Your task to perform on an android device: set an alarm Image 0: 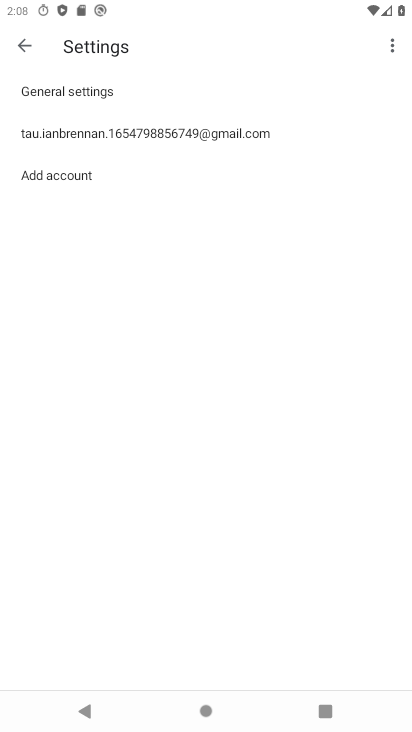
Step 0: press home button
Your task to perform on an android device: set an alarm Image 1: 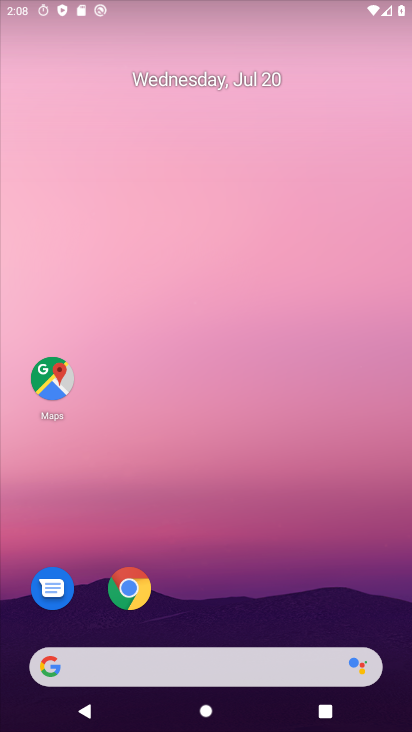
Step 1: drag from (286, 653) to (235, 35)
Your task to perform on an android device: set an alarm Image 2: 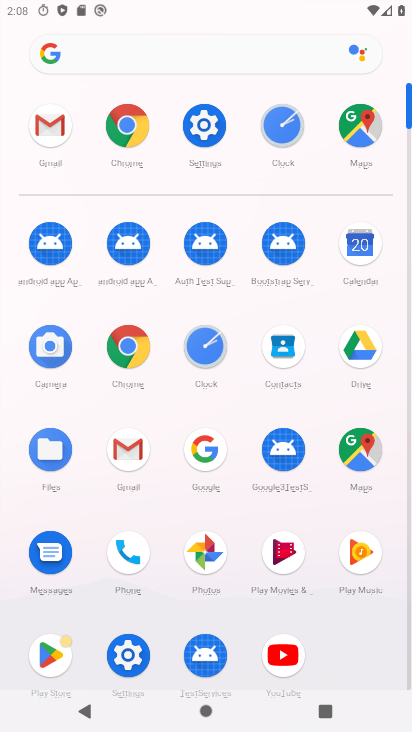
Step 2: click (216, 343)
Your task to perform on an android device: set an alarm Image 3: 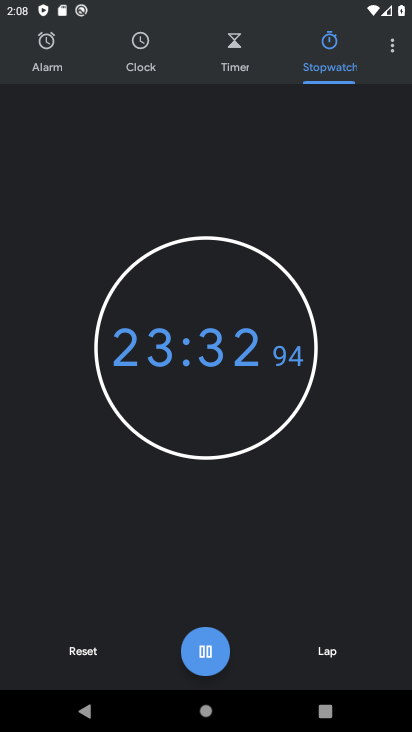
Step 3: click (57, 52)
Your task to perform on an android device: set an alarm Image 4: 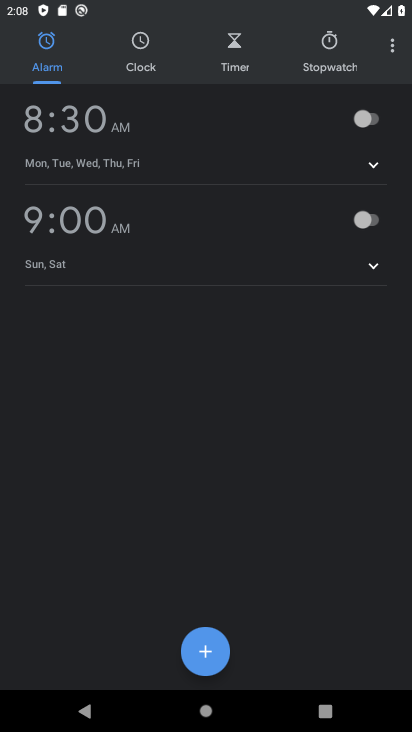
Step 4: click (368, 222)
Your task to perform on an android device: set an alarm Image 5: 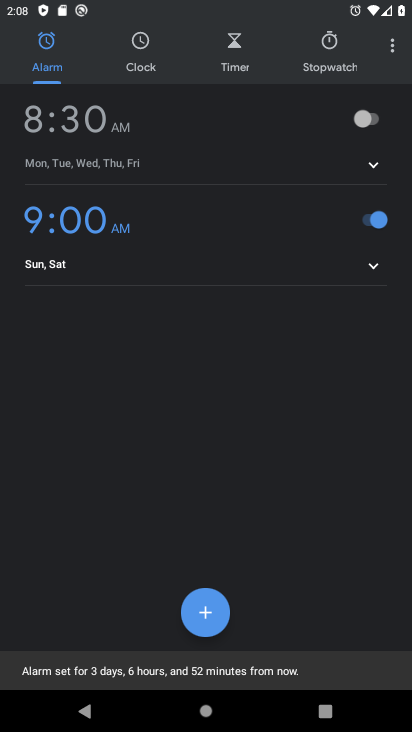
Step 5: task complete